Your task to perform on an android device: Open the web browser Image 0: 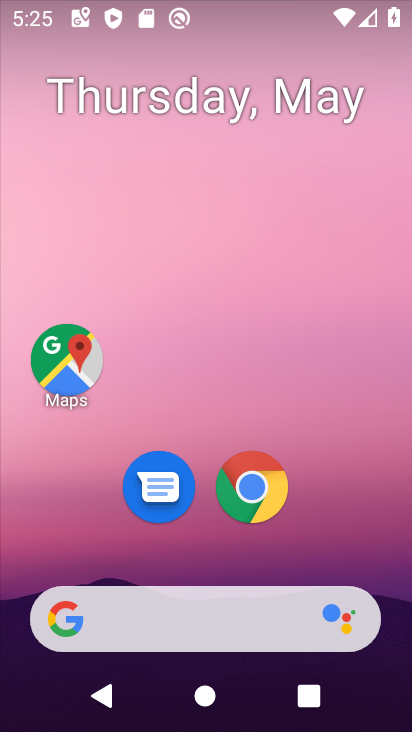
Step 0: click (259, 483)
Your task to perform on an android device: Open the web browser Image 1: 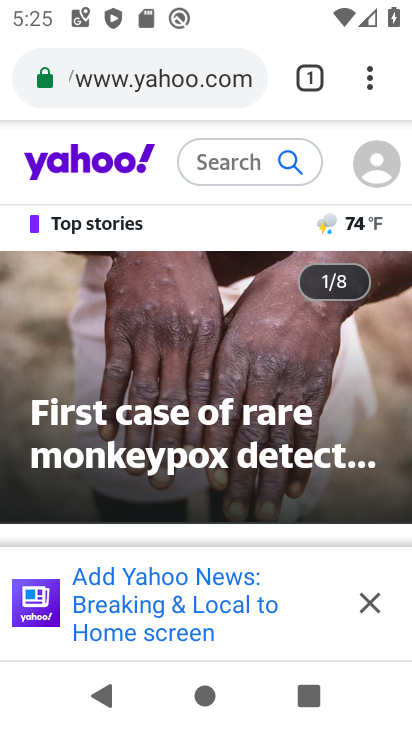
Step 1: click (367, 77)
Your task to perform on an android device: Open the web browser Image 2: 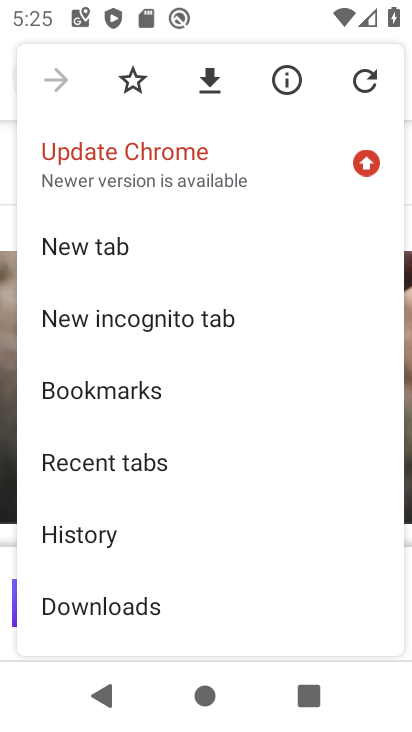
Step 2: click (201, 249)
Your task to perform on an android device: Open the web browser Image 3: 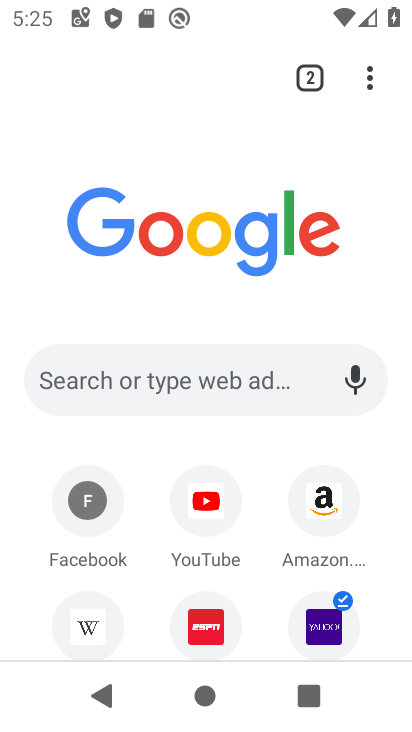
Step 3: task complete